Your task to perform on an android device: make emails show in primary in the gmail app Image 0: 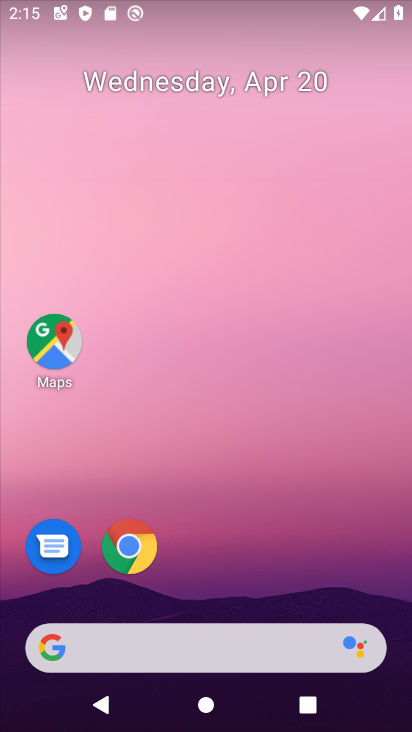
Step 0: drag from (291, 669) to (214, 166)
Your task to perform on an android device: make emails show in primary in the gmail app Image 1: 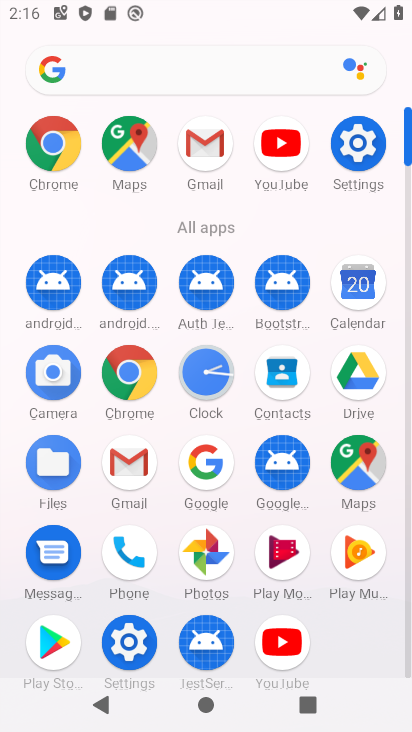
Step 1: click (126, 469)
Your task to perform on an android device: make emails show in primary in the gmail app Image 2: 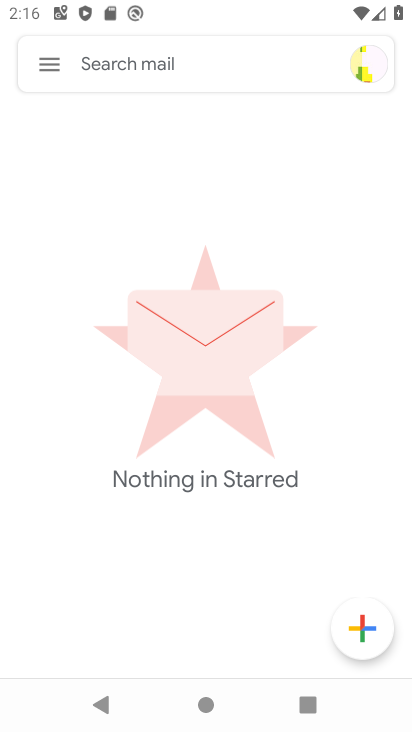
Step 2: click (31, 69)
Your task to perform on an android device: make emails show in primary in the gmail app Image 3: 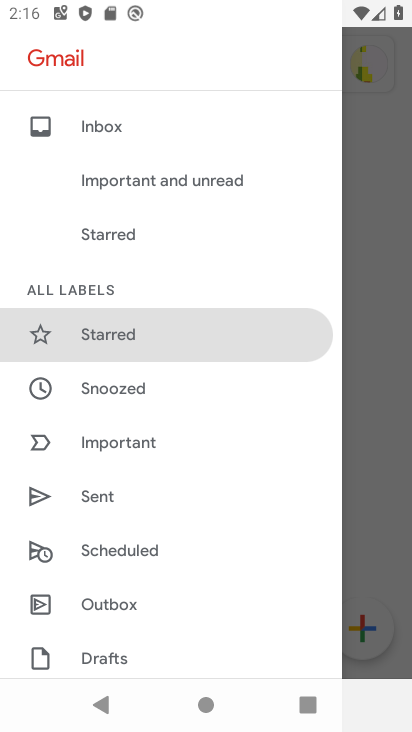
Step 3: drag from (165, 596) to (231, 415)
Your task to perform on an android device: make emails show in primary in the gmail app Image 4: 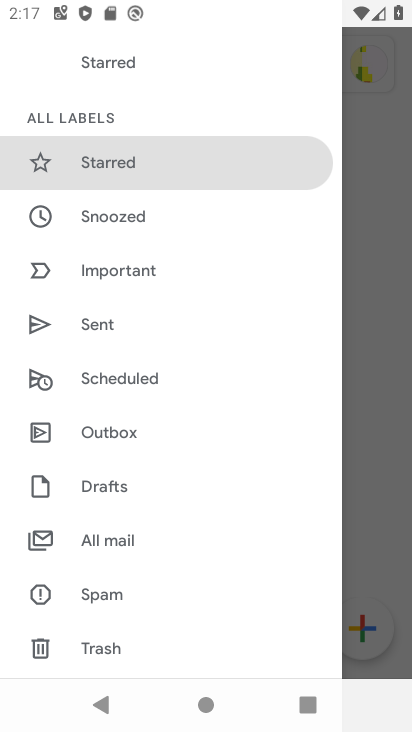
Step 4: drag from (141, 577) to (241, 333)
Your task to perform on an android device: make emails show in primary in the gmail app Image 5: 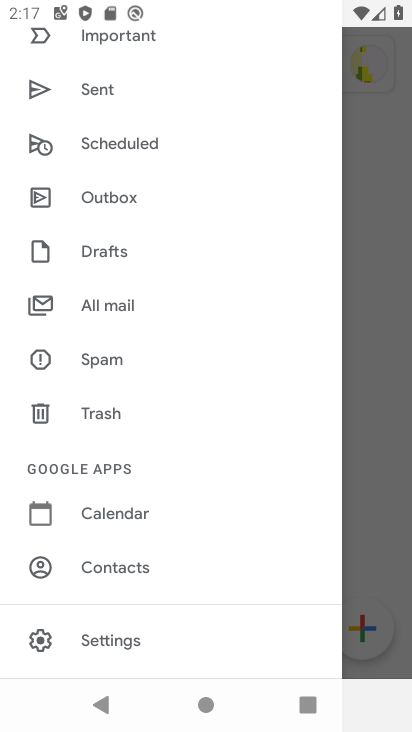
Step 5: click (130, 629)
Your task to perform on an android device: make emails show in primary in the gmail app Image 6: 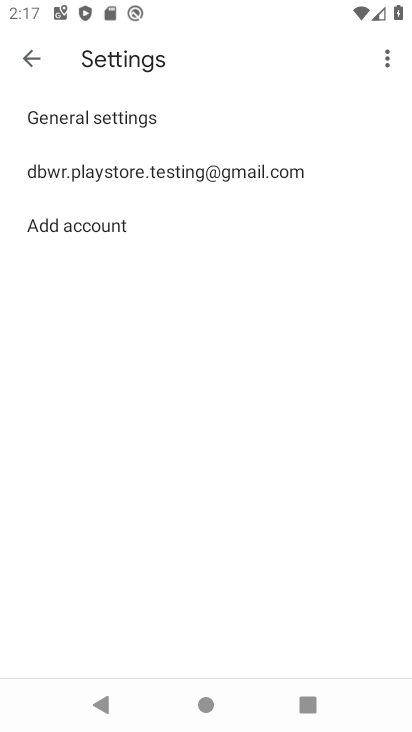
Step 6: click (157, 171)
Your task to perform on an android device: make emails show in primary in the gmail app Image 7: 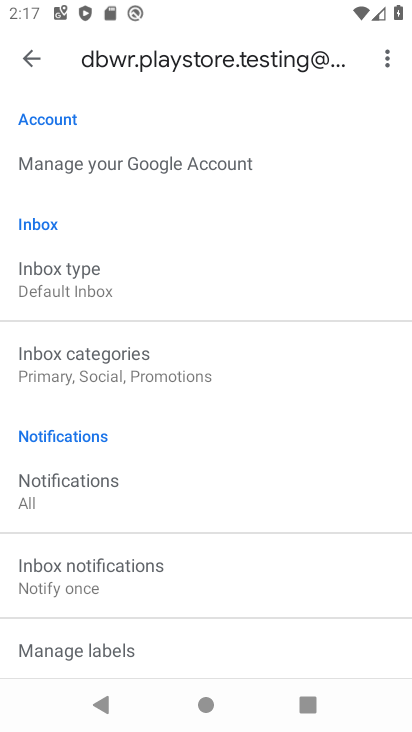
Step 7: click (121, 355)
Your task to perform on an android device: make emails show in primary in the gmail app Image 8: 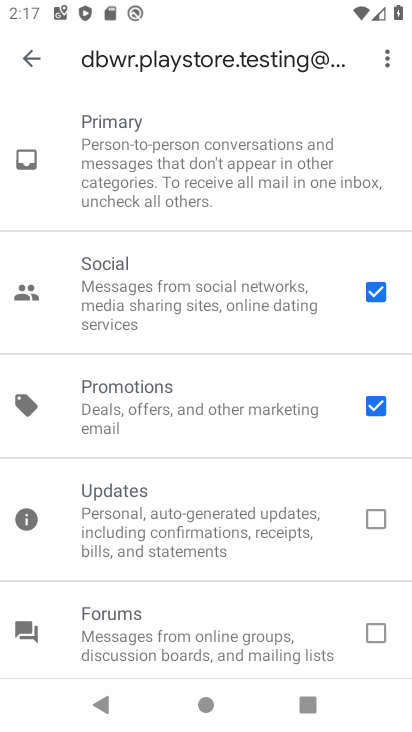
Step 8: click (375, 293)
Your task to perform on an android device: make emails show in primary in the gmail app Image 9: 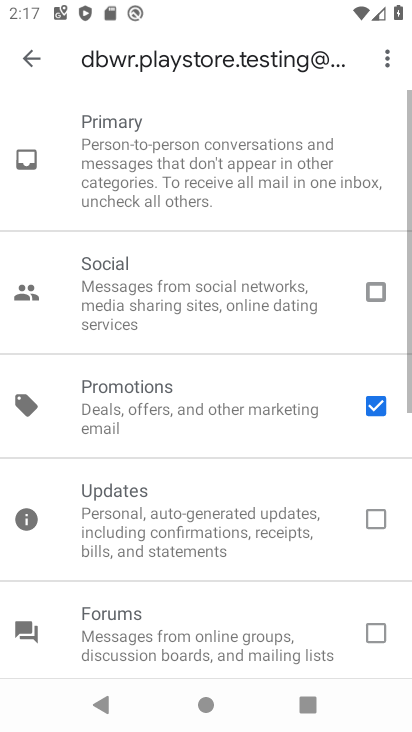
Step 9: click (373, 403)
Your task to perform on an android device: make emails show in primary in the gmail app Image 10: 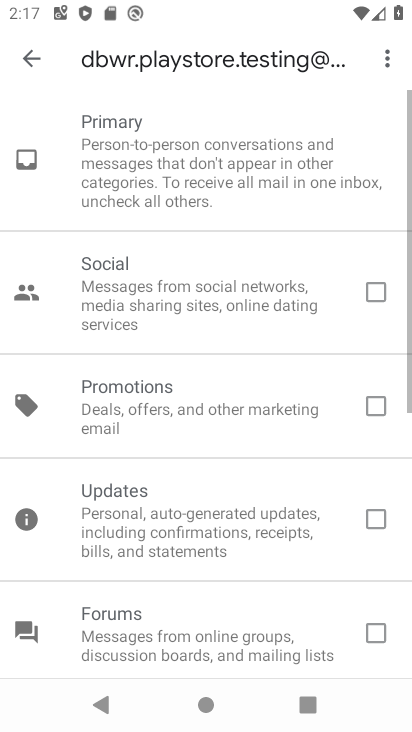
Step 10: click (226, 129)
Your task to perform on an android device: make emails show in primary in the gmail app Image 11: 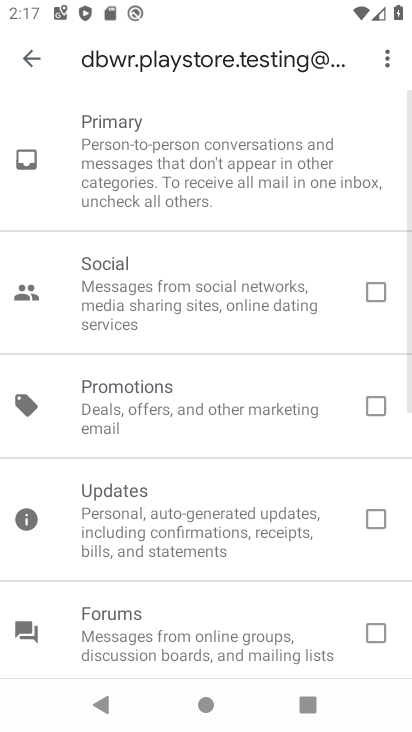
Step 11: task complete